Your task to perform on an android device: Play the last video I watched on Youtube Image 0: 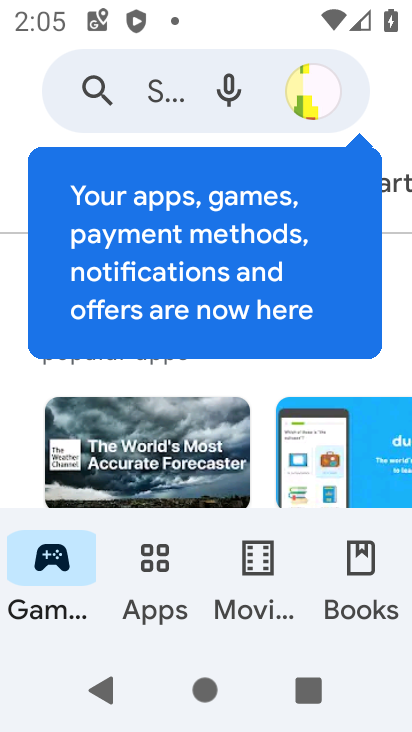
Step 0: press home button
Your task to perform on an android device: Play the last video I watched on Youtube Image 1: 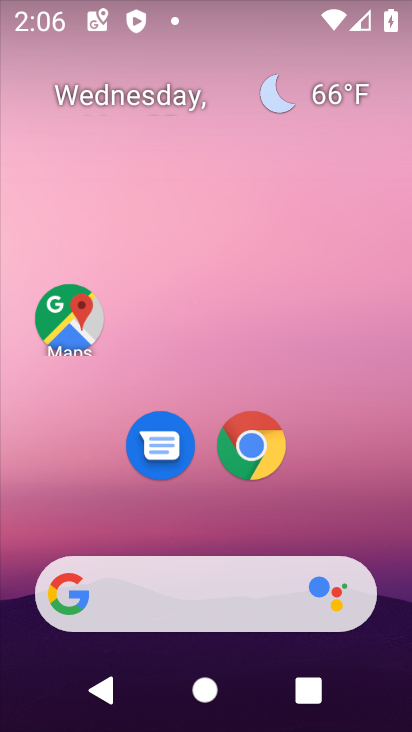
Step 1: drag from (26, 540) to (222, 127)
Your task to perform on an android device: Play the last video I watched on Youtube Image 2: 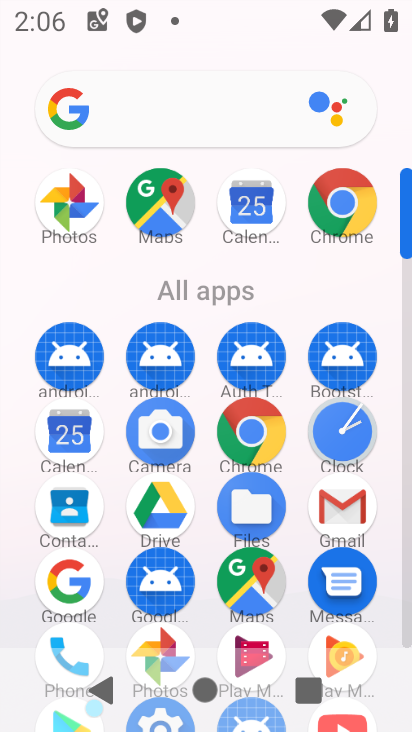
Step 2: drag from (17, 568) to (192, 197)
Your task to perform on an android device: Play the last video I watched on Youtube Image 3: 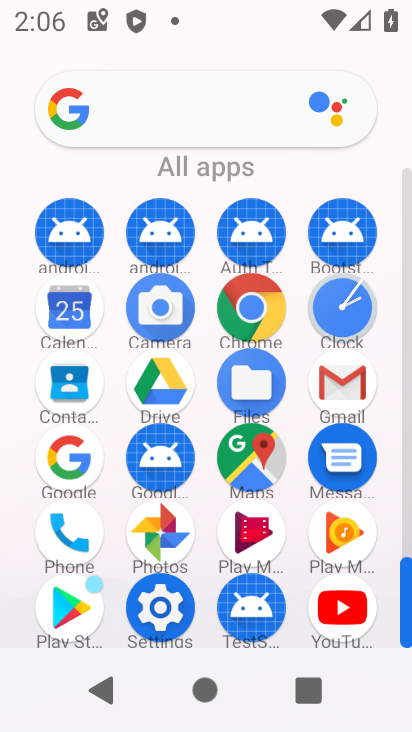
Step 3: click (329, 621)
Your task to perform on an android device: Play the last video I watched on Youtube Image 4: 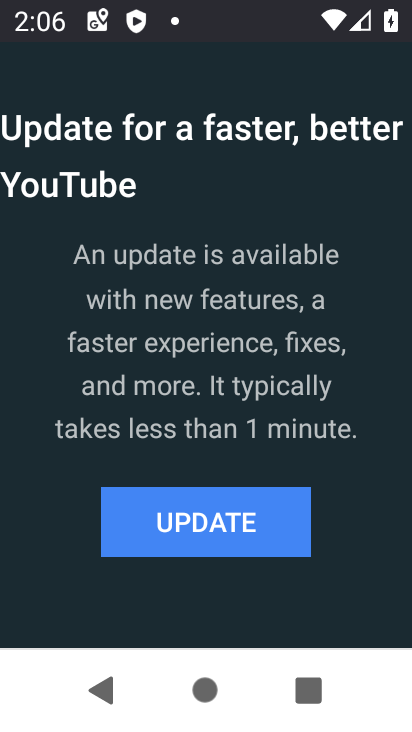
Step 4: task complete